Your task to perform on an android device: delete browsing data in the chrome app Image 0: 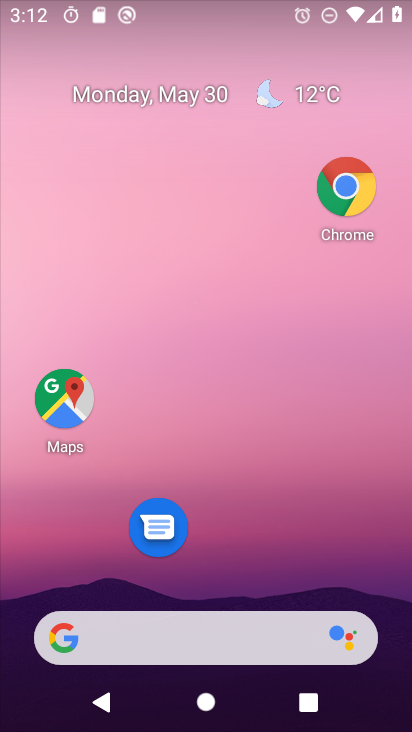
Step 0: drag from (221, 570) to (266, 85)
Your task to perform on an android device: delete browsing data in the chrome app Image 1: 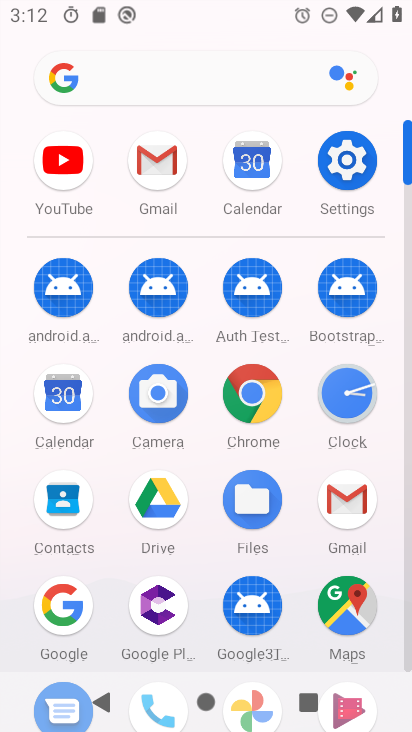
Step 1: drag from (220, 549) to (224, 0)
Your task to perform on an android device: delete browsing data in the chrome app Image 2: 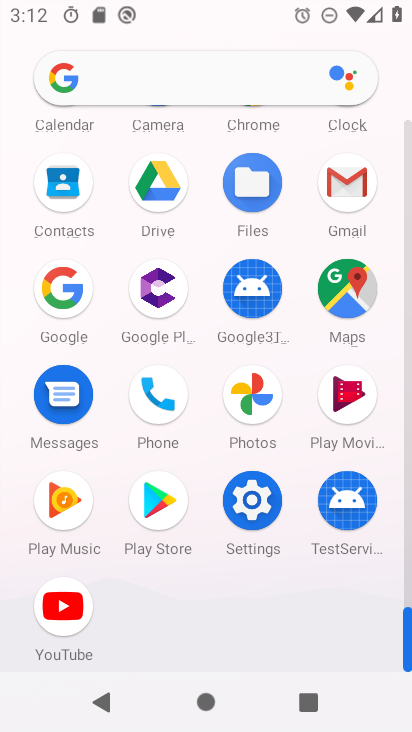
Step 2: drag from (194, 210) to (210, 593)
Your task to perform on an android device: delete browsing data in the chrome app Image 3: 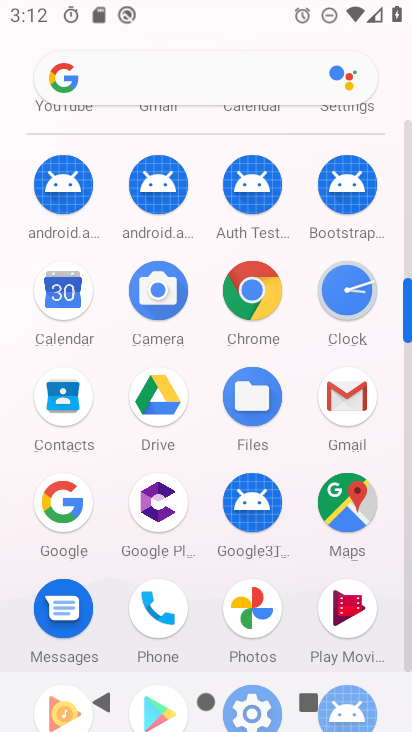
Step 3: click (251, 299)
Your task to perform on an android device: delete browsing data in the chrome app Image 4: 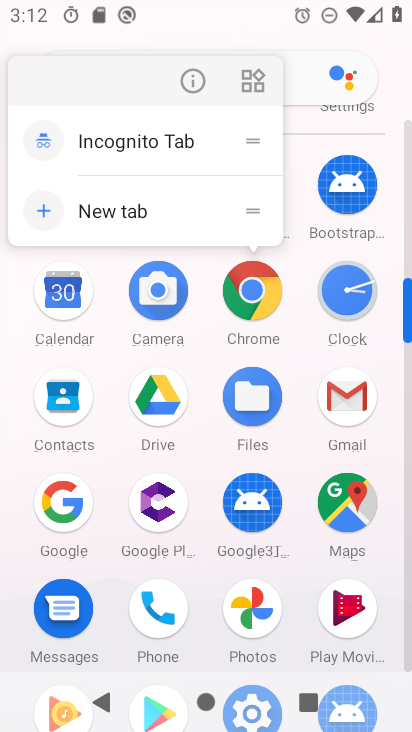
Step 4: click (191, 80)
Your task to perform on an android device: delete browsing data in the chrome app Image 5: 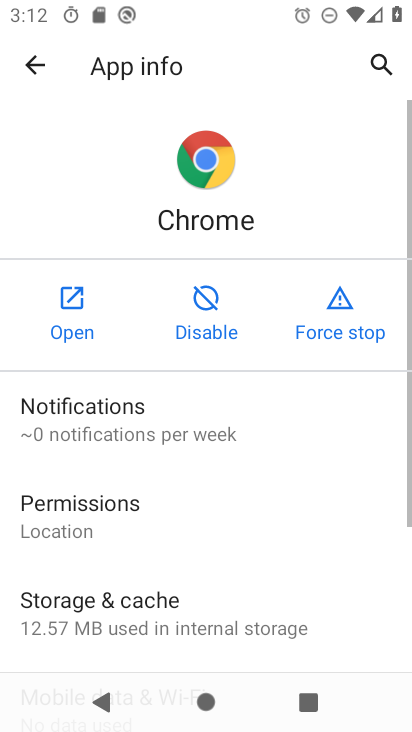
Step 5: click (59, 333)
Your task to perform on an android device: delete browsing data in the chrome app Image 6: 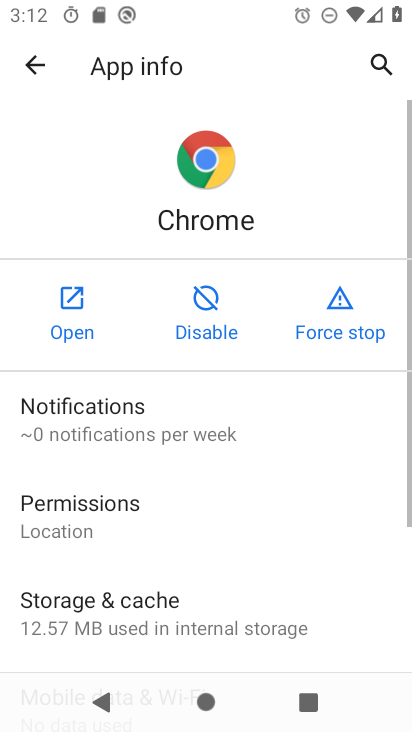
Step 6: click (59, 333)
Your task to perform on an android device: delete browsing data in the chrome app Image 7: 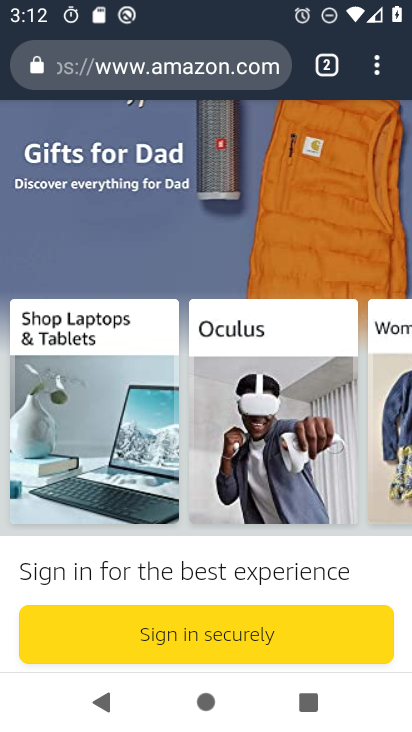
Step 7: task complete